Your task to perform on an android device: Open calendar and show me the fourth week of next month Image 0: 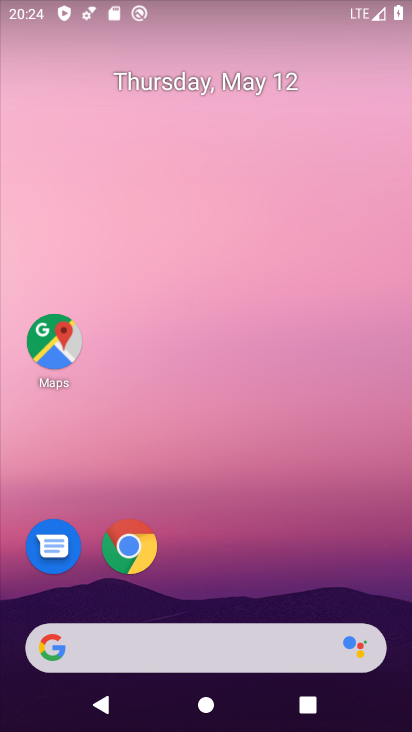
Step 0: drag from (198, 598) to (267, 53)
Your task to perform on an android device: Open calendar and show me the fourth week of next month Image 1: 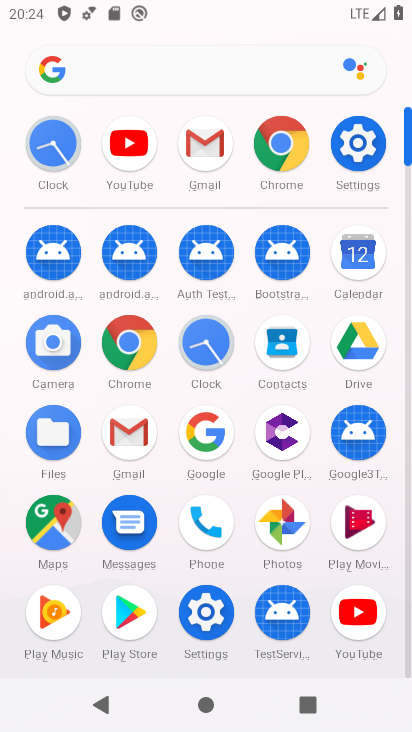
Step 1: click (352, 260)
Your task to perform on an android device: Open calendar and show me the fourth week of next month Image 2: 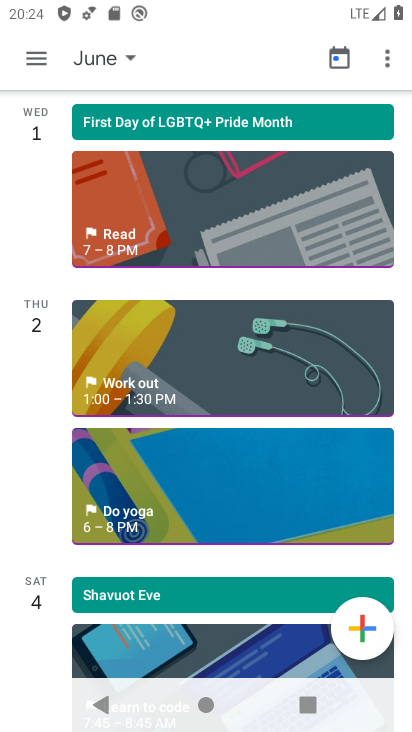
Step 2: click (113, 59)
Your task to perform on an android device: Open calendar and show me the fourth week of next month Image 3: 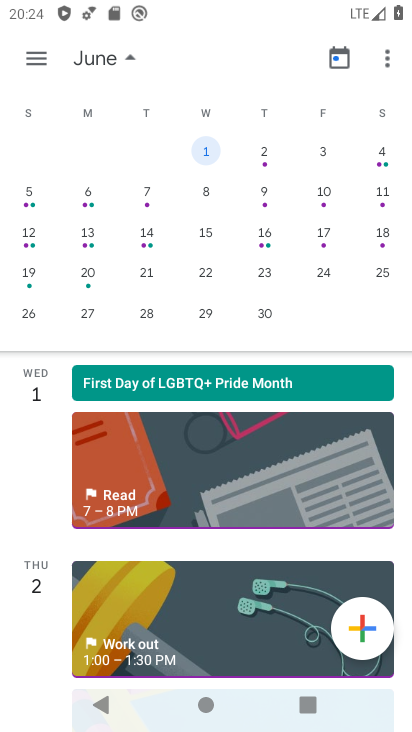
Step 3: click (93, 272)
Your task to perform on an android device: Open calendar and show me the fourth week of next month Image 4: 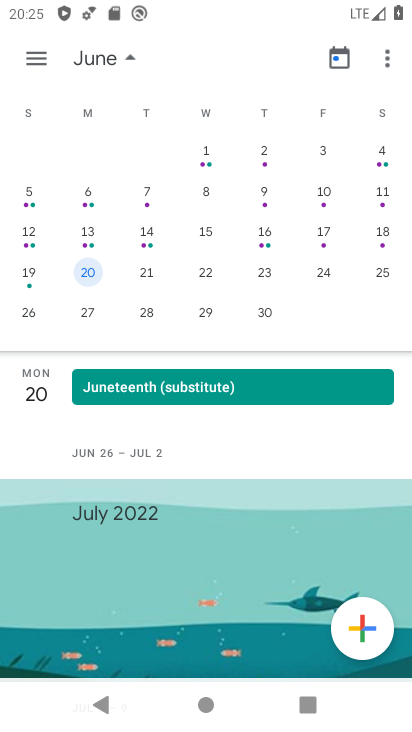
Step 4: task complete